Your task to perform on an android device: set default search engine in the chrome app Image 0: 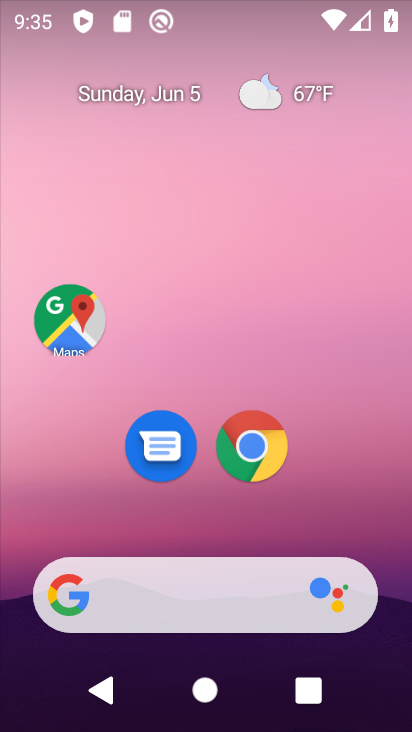
Step 0: click (247, 467)
Your task to perform on an android device: set default search engine in the chrome app Image 1: 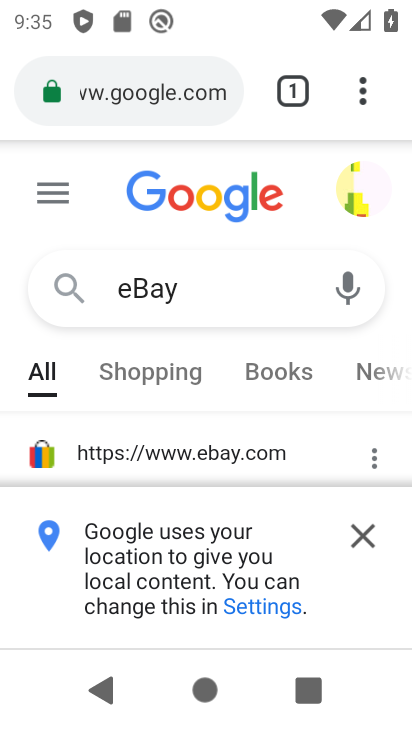
Step 1: drag from (360, 91) to (118, 487)
Your task to perform on an android device: set default search engine in the chrome app Image 2: 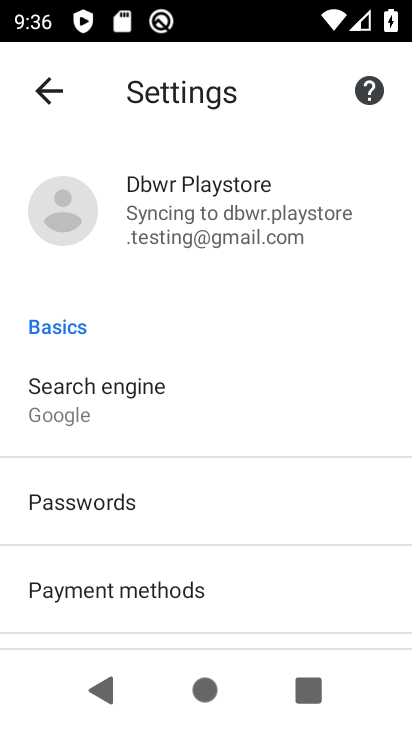
Step 2: click (91, 421)
Your task to perform on an android device: set default search engine in the chrome app Image 3: 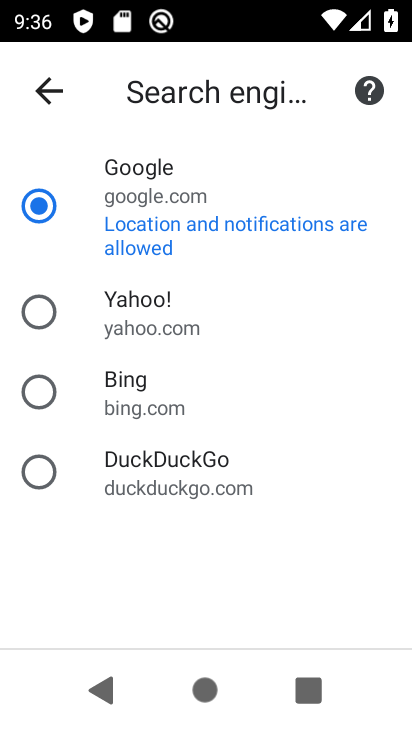
Step 3: click (42, 310)
Your task to perform on an android device: set default search engine in the chrome app Image 4: 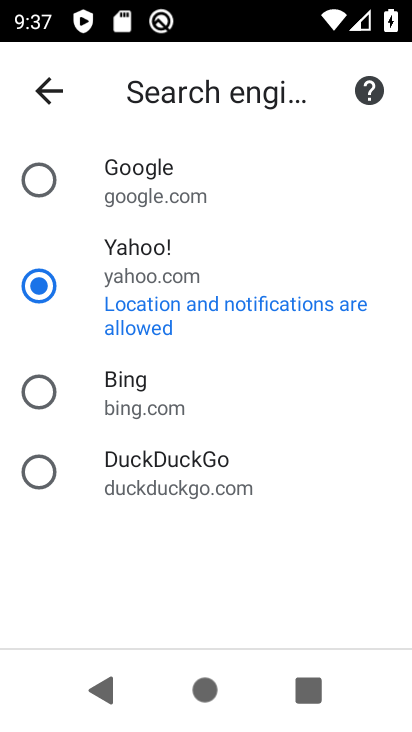
Step 4: task complete